Your task to perform on an android device: Show the shopping cart on walmart.com. Image 0: 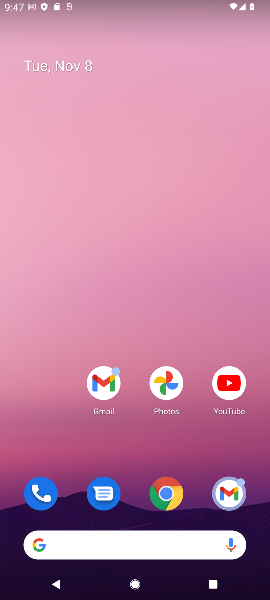
Step 0: click (170, 492)
Your task to perform on an android device: Show the shopping cart on walmart.com. Image 1: 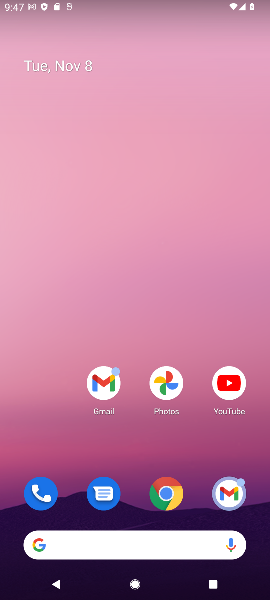
Step 1: click (170, 492)
Your task to perform on an android device: Show the shopping cart on walmart.com. Image 2: 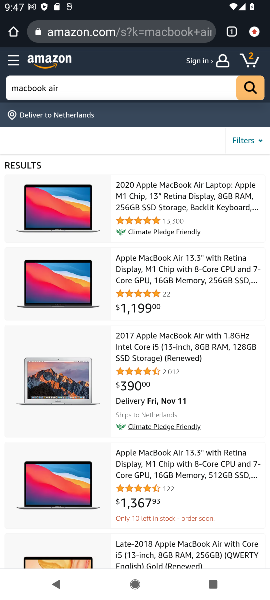
Step 2: click (118, 34)
Your task to perform on an android device: Show the shopping cart on walmart.com. Image 3: 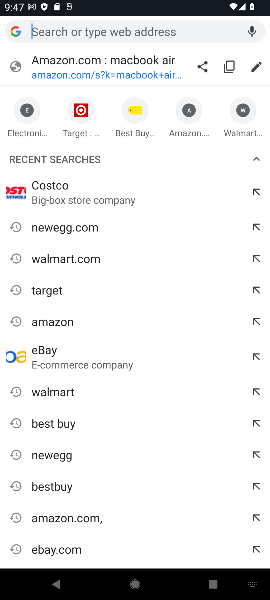
Step 3: click (241, 126)
Your task to perform on an android device: Show the shopping cart on walmart.com. Image 4: 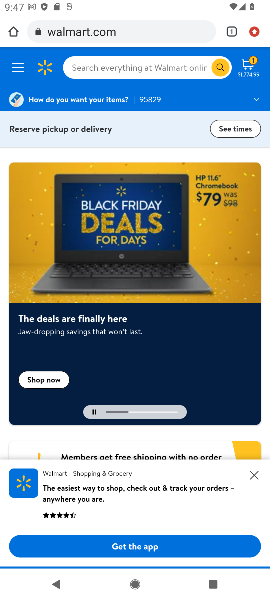
Step 4: click (249, 69)
Your task to perform on an android device: Show the shopping cart on walmart.com. Image 5: 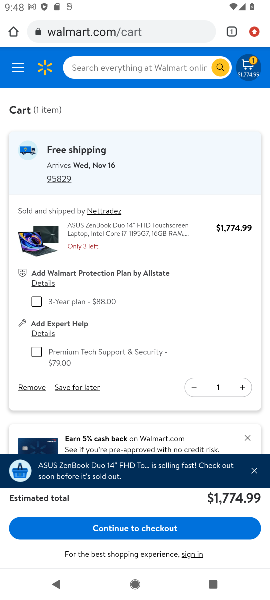
Step 5: task complete